Your task to perform on an android device: open sync settings in chrome Image 0: 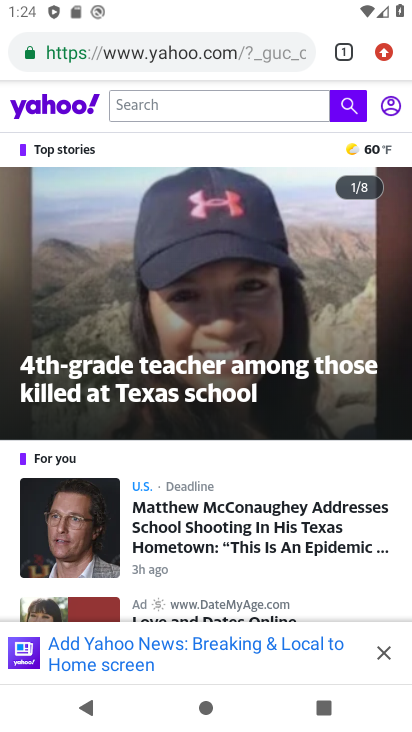
Step 0: drag from (383, 48) to (207, 598)
Your task to perform on an android device: open sync settings in chrome Image 1: 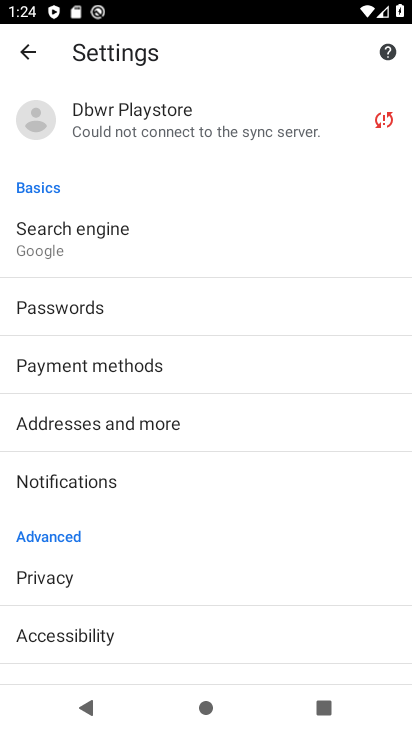
Step 1: click (136, 121)
Your task to perform on an android device: open sync settings in chrome Image 2: 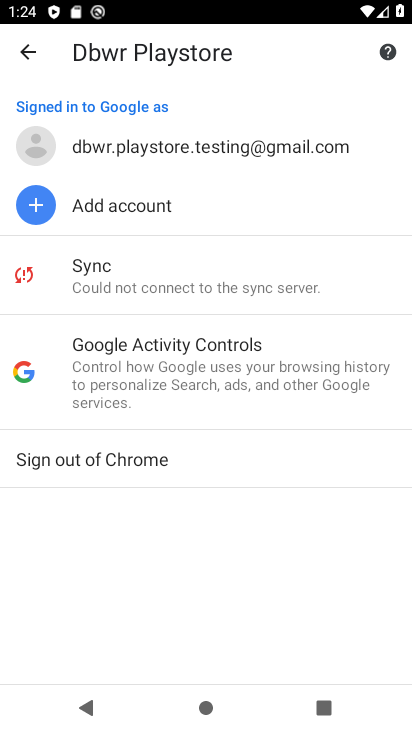
Step 2: click (120, 293)
Your task to perform on an android device: open sync settings in chrome Image 3: 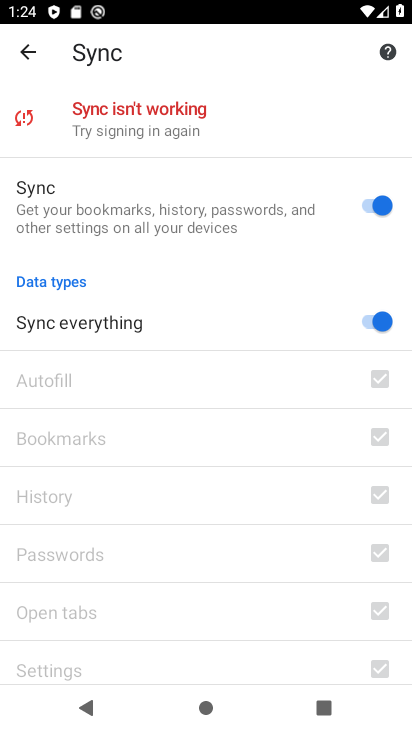
Step 3: task complete